Your task to perform on an android device: Open calendar and show me the third week of next month Image 0: 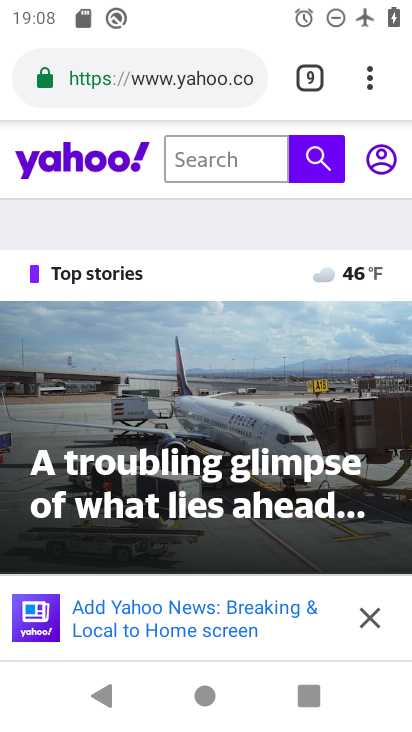
Step 0: press home button
Your task to perform on an android device: Open calendar and show me the third week of next month Image 1: 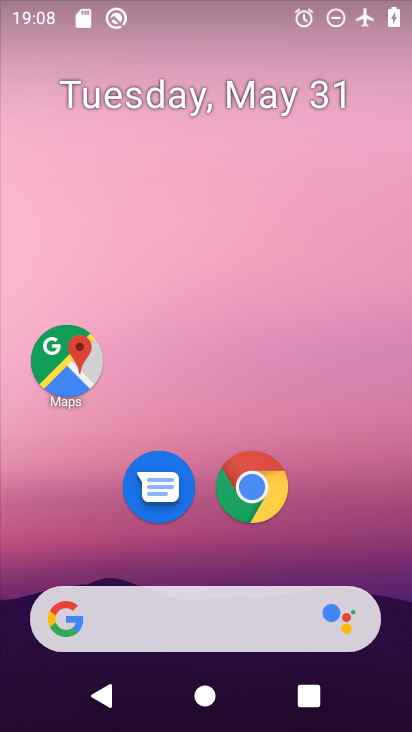
Step 1: drag from (292, 416) to (241, 184)
Your task to perform on an android device: Open calendar and show me the third week of next month Image 2: 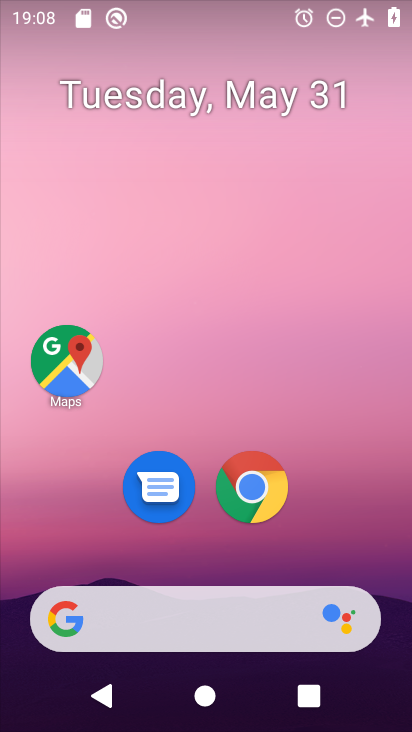
Step 2: drag from (319, 484) to (193, 76)
Your task to perform on an android device: Open calendar and show me the third week of next month Image 3: 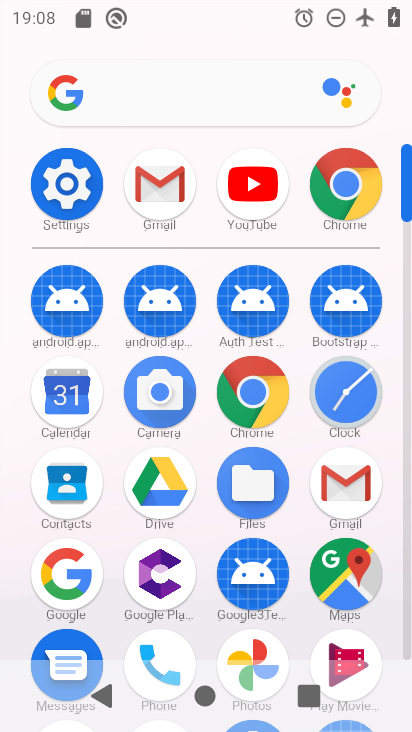
Step 3: click (69, 388)
Your task to perform on an android device: Open calendar and show me the third week of next month Image 4: 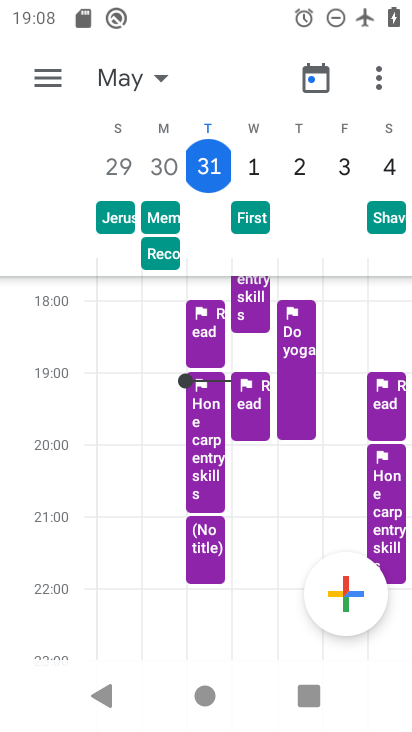
Step 4: click (165, 77)
Your task to perform on an android device: Open calendar and show me the third week of next month Image 5: 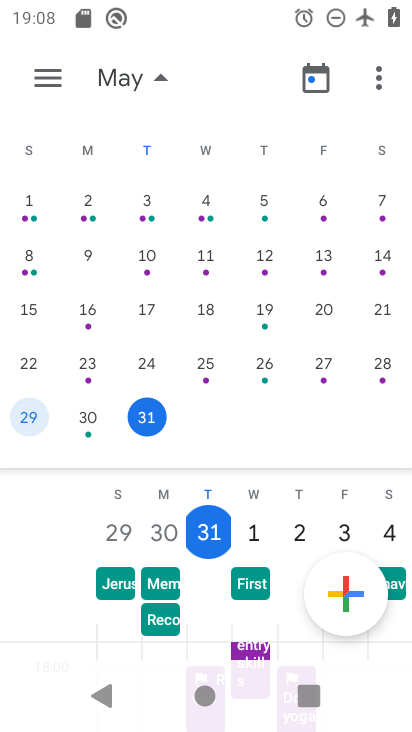
Step 5: drag from (353, 293) to (31, 263)
Your task to perform on an android device: Open calendar and show me the third week of next month Image 6: 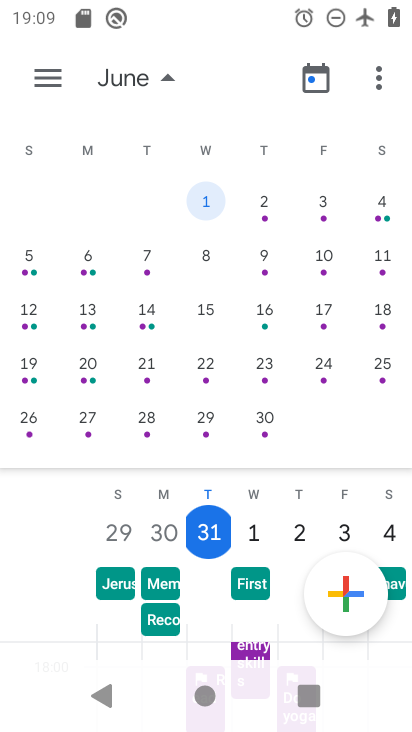
Step 6: click (208, 311)
Your task to perform on an android device: Open calendar and show me the third week of next month Image 7: 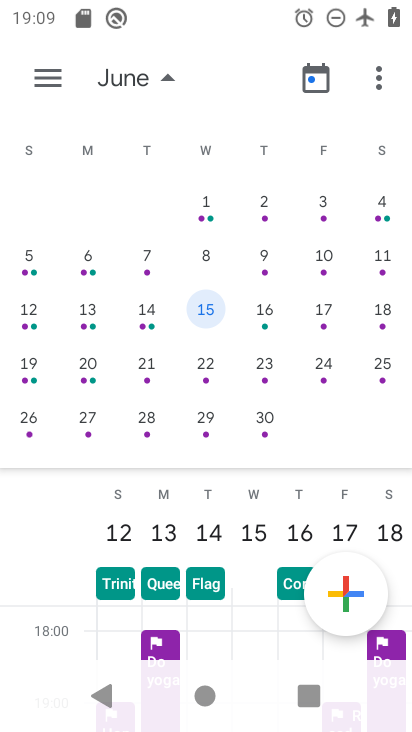
Step 7: task complete